Your task to perform on an android device: show emergency info Image 0: 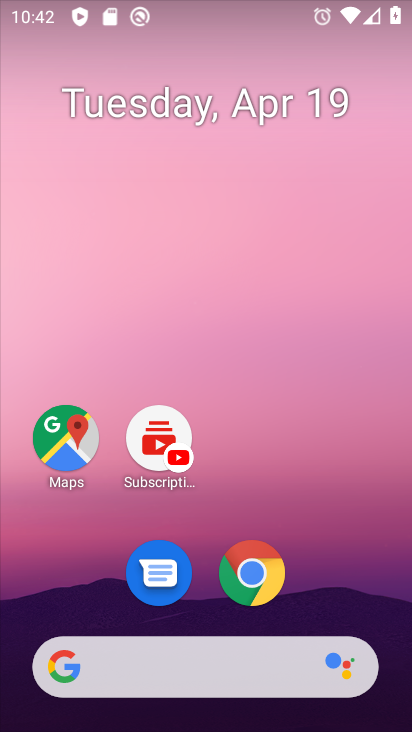
Step 0: drag from (318, 564) to (263, 78)
Your task to perform on an android device: show emergency info Image 1: 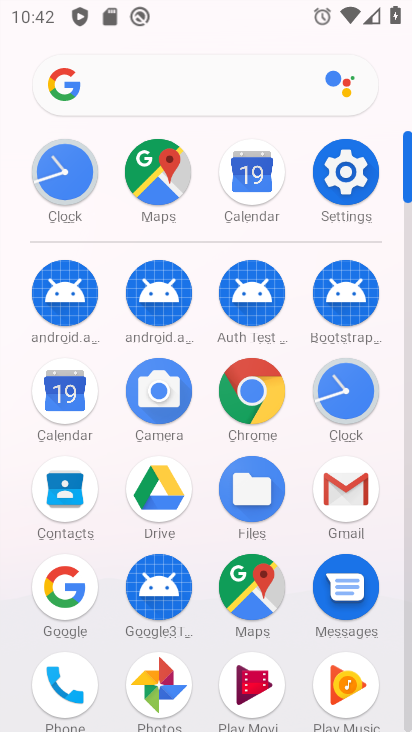
Step 1: click (348, 165)
Your task to perform on an android device: show emergency info Image 2: 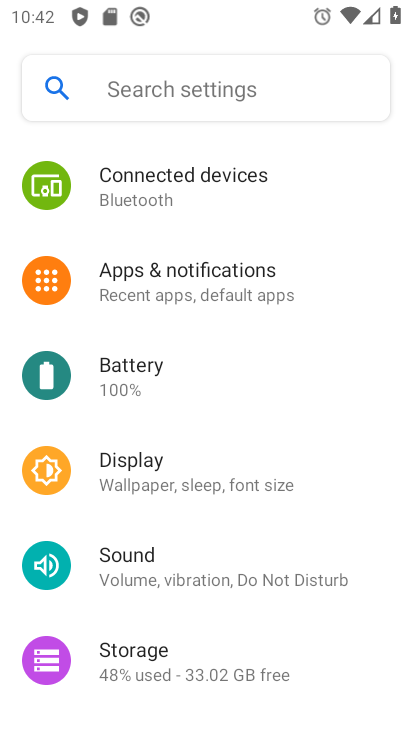
Step 2: drag from (182, 546) to (185, 194)
Your task to perform on an android device: show emergency info Image 3: 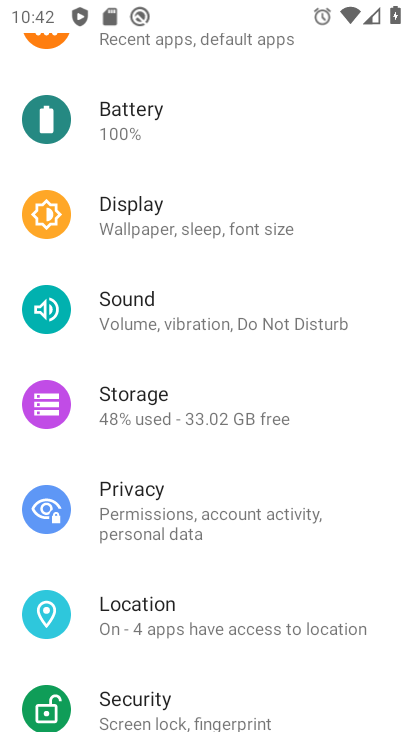
Step 3: drag from (179, 667) to (193, 172)
Your task to perform on an android device: show emergency info Image 4: 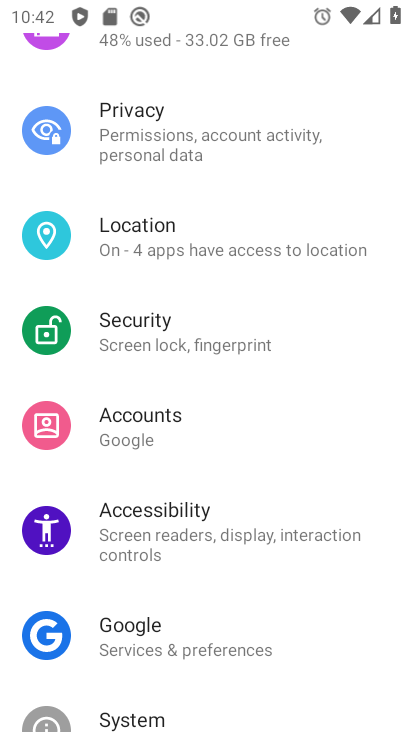
Step 4: drag from (191, 602) to (184, 215)
Your task to perform on an android device: show emergency info Image 5: 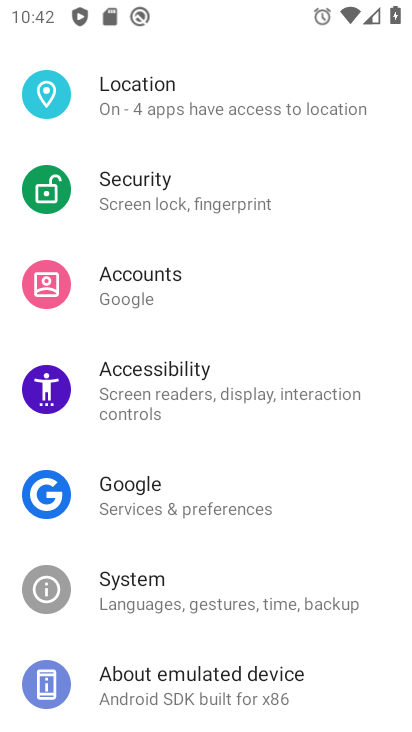
Step 5: drag from (162, 147) to (141, 360)
Your task to perform on an android device: show emergency info Image 6: 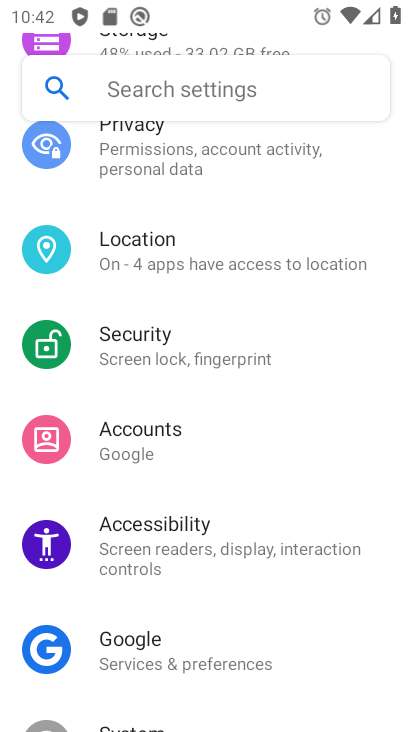
Step 6: click (157, 94)
Your task to perform on an android device: show emergency info Image 7: 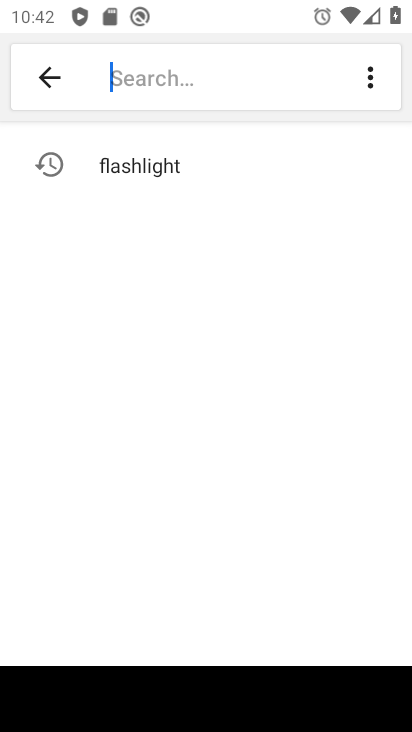
Step 7: type "emergency info"
Your task to perform on an android device: show emergency info Image 8: 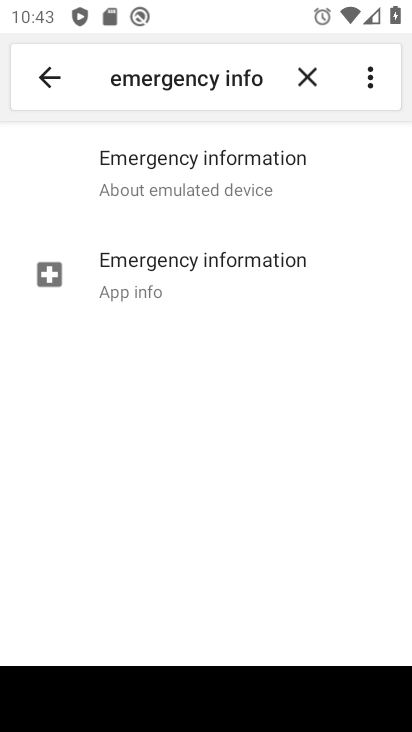
Step 8: click (194, 167)
Your task to perform on an android device: show emergency info Image 9: 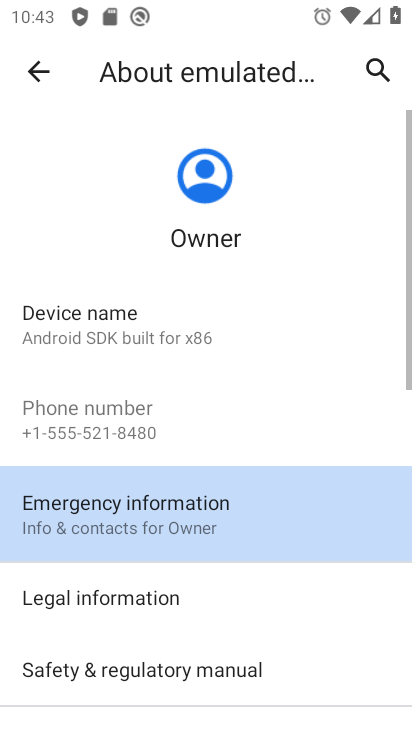
Step 9: click (120, 517)
Your task to perform on an android device: show emergency info Image 10: 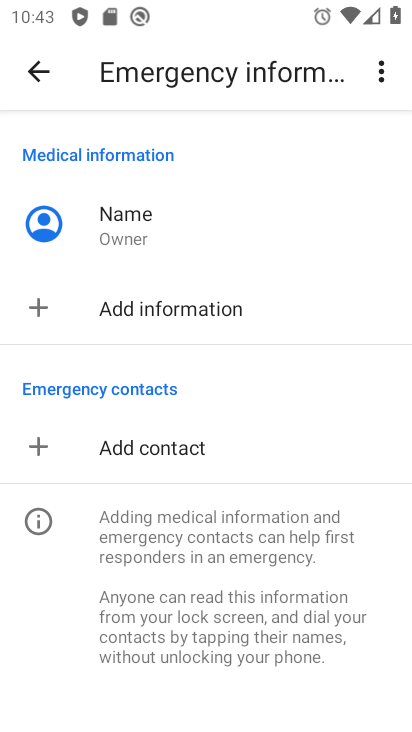
Step 10: task complete